Your task to perform on an android device: Open the calendar and show me this week's events Image 0: 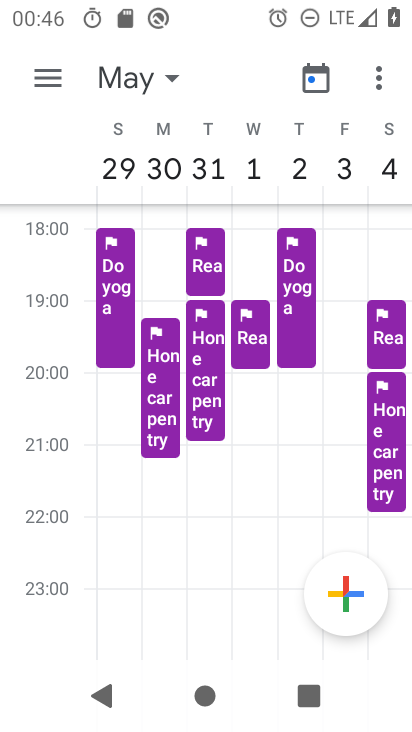
Step 0: press home button
Your task to perform on an android device: Open the calendar and show me this week's events Image 1: 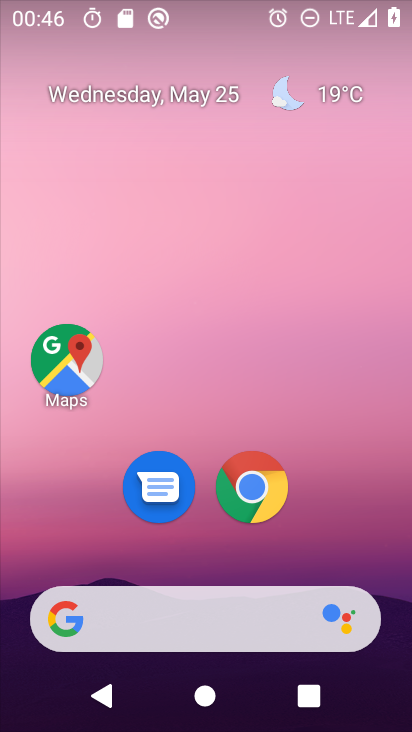
Step 1: drag from (348, 550) to (330, 0)
Your task to perform on an android device: Open the calendar and show me this week's events Image 2: 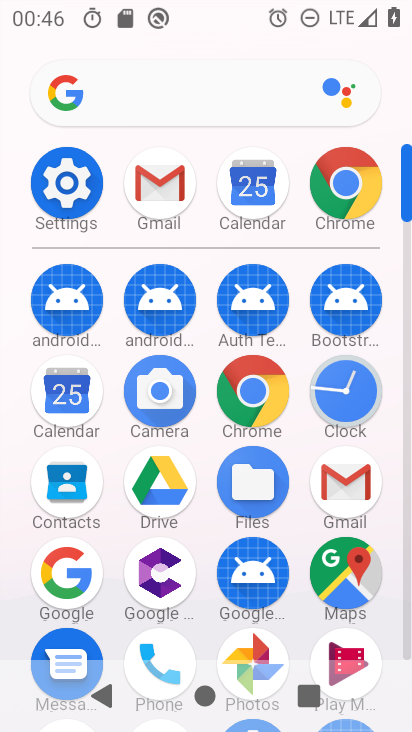
Step 2: click (237, 189)
Your task to perform on an android device: Open the calendar and show me this week's events Image 3: 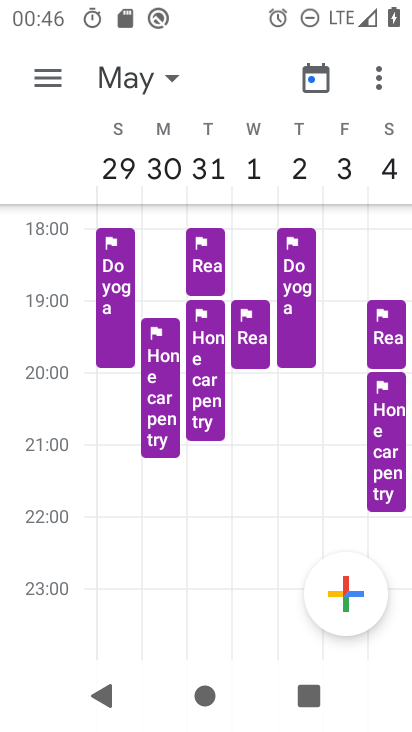
Step 3: task complete